Your task to perform on an android device: open app "Fetch Rewards" (install if not already installed) and enter user name: "Westwood@yahoo.com" and password: "qualifying" Image 0: 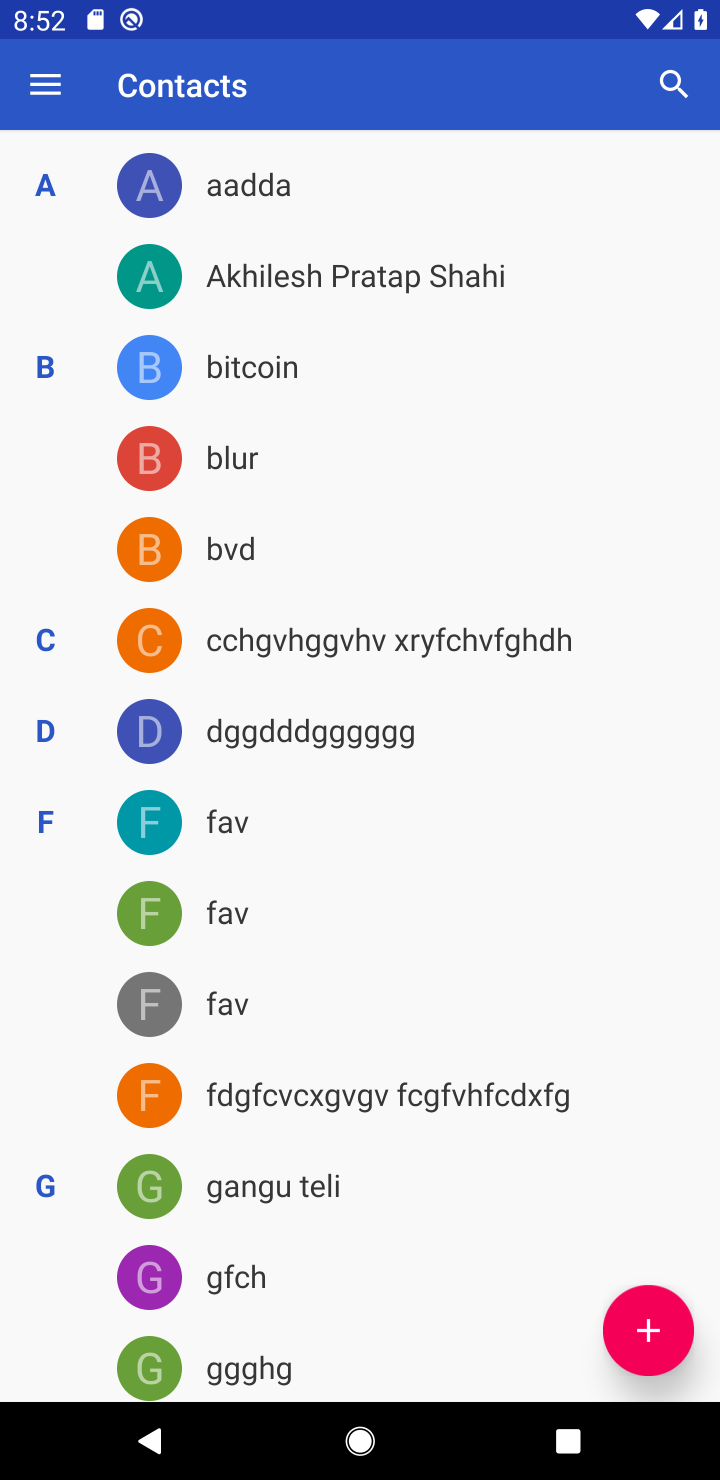
Step 0: press back button
Your task to perform on an android device: open app "Fetch Rewards" (install if not already installed) and enter user name: "Westwood@yahoo.com" and password: "qualifying" Image 1: 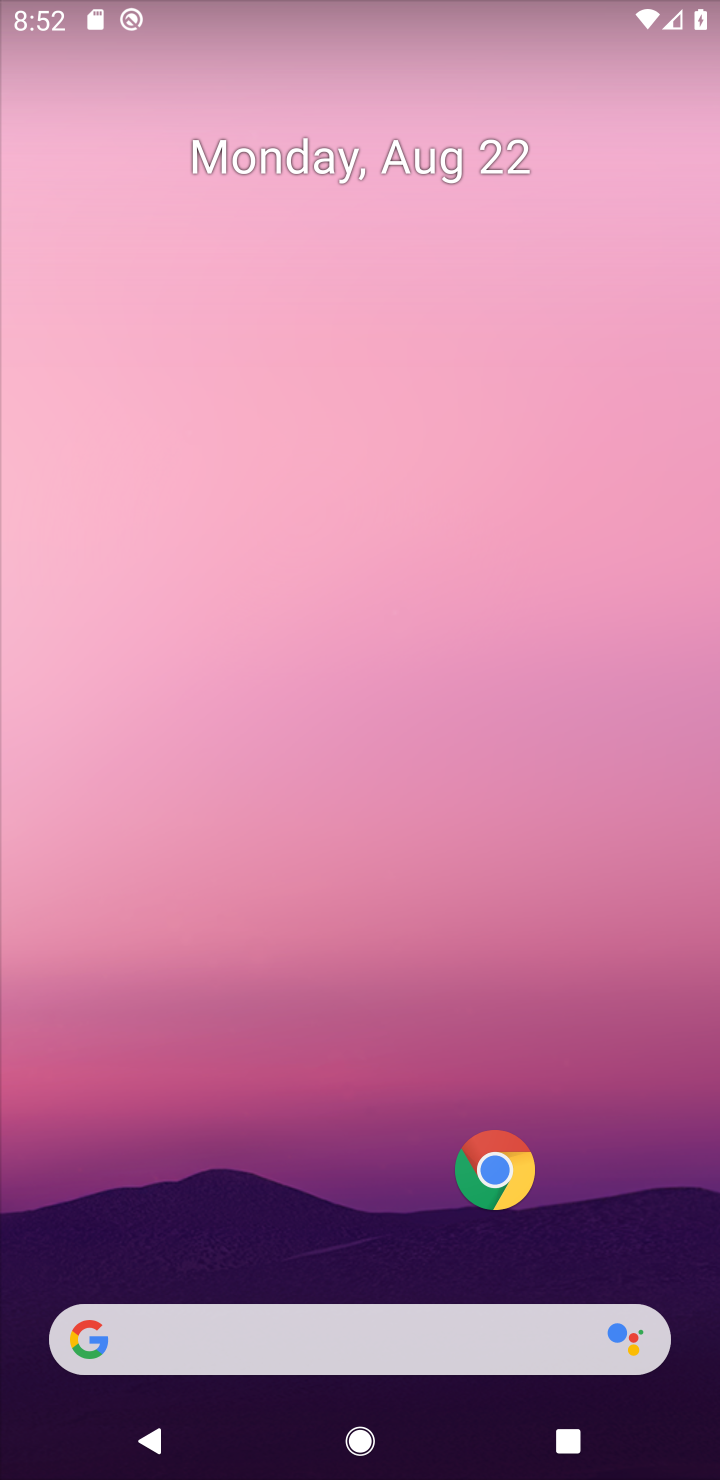
Step 1: drag from (308, 971) to (555, 45)
Your task to perform on an android device: open app "Fetch Rewards" (install if not already installed) and enter user name: "Westwood@yahoo.com" and password: "qualifying" Image 2: 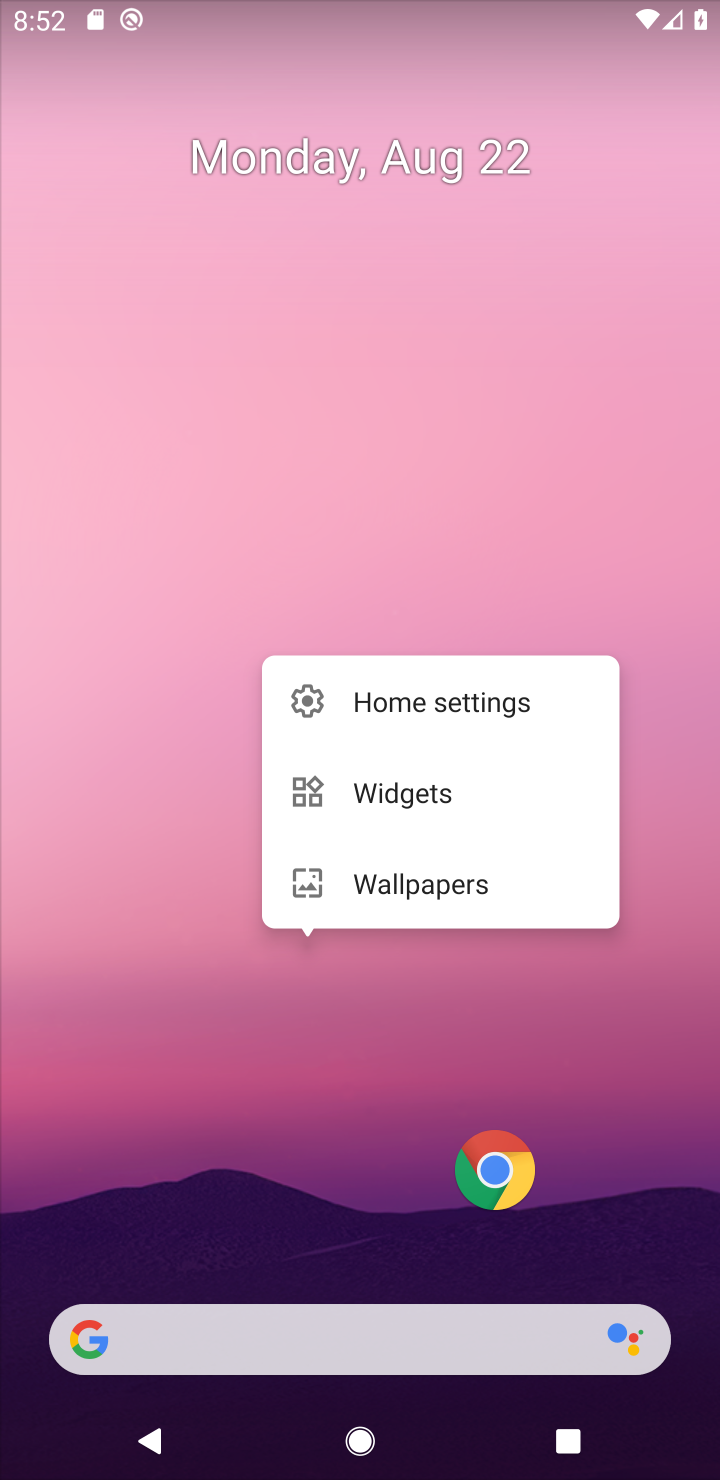
Step 2: click (165, 1170)
Your task to perform on an android device: open app "Fetch Rewards" (install if not already installed) and enter user name: "Westwood@yahoo.com" and password: "qualifying" Image 3: 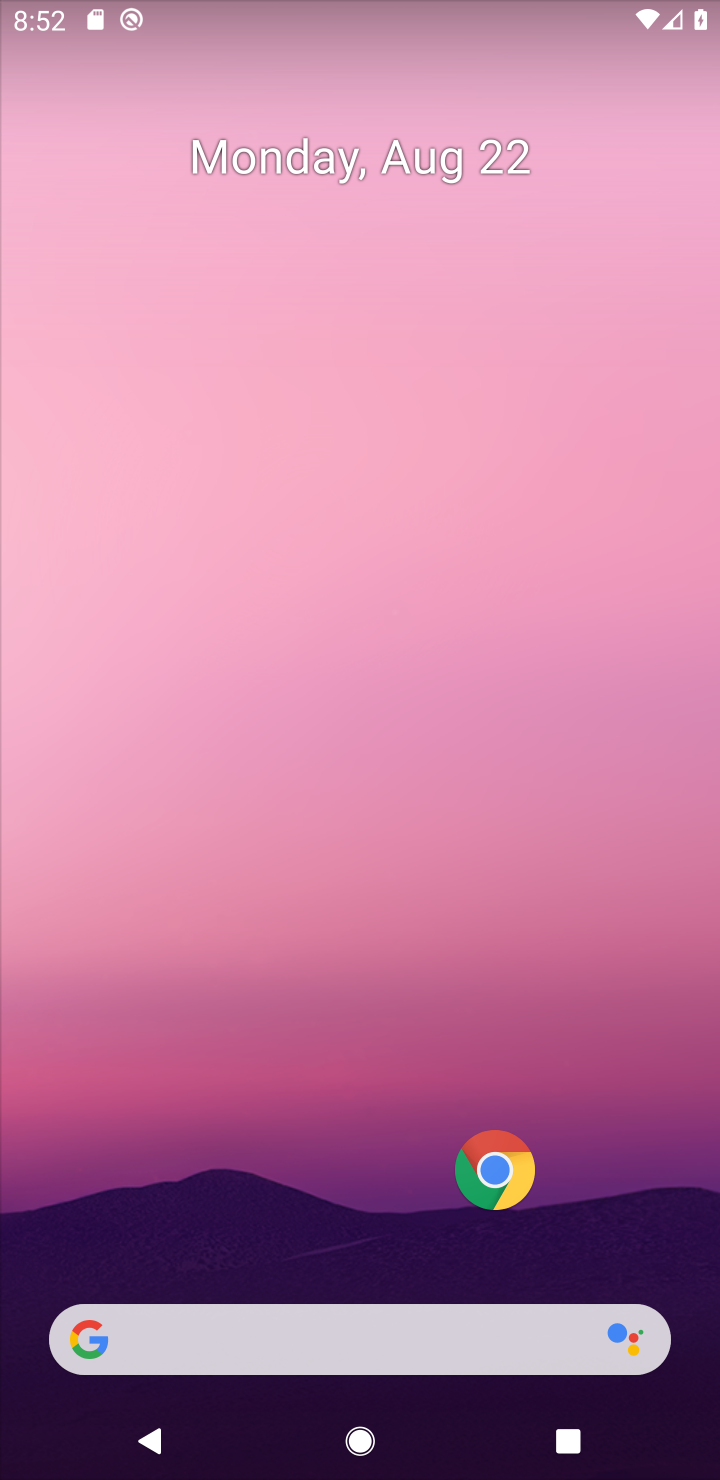
Step 3: drag from (221, 995) to (348, 177)
Your task to perform on an android device: open app "Fetch Rewards" (install if not already installed) and enter user name: "Westwood@yahoo.com" and password: "qualifying" Image 4: 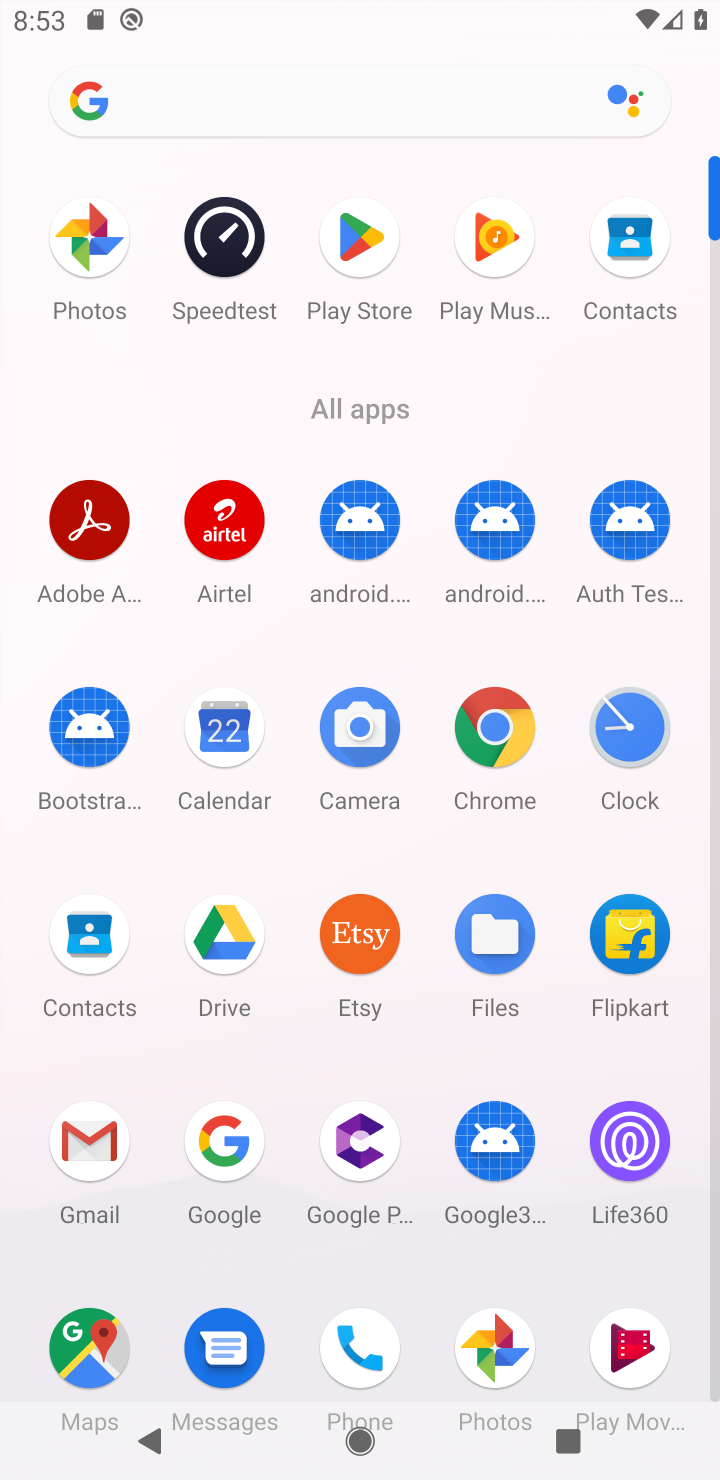
Step 4: click (359, 228)
Your task to perform on an android device: open app "Fetch Rewards" (install if not already installed) and enter user name: "Westwood@yahoo.com" and password: "qualifying" Image 5: 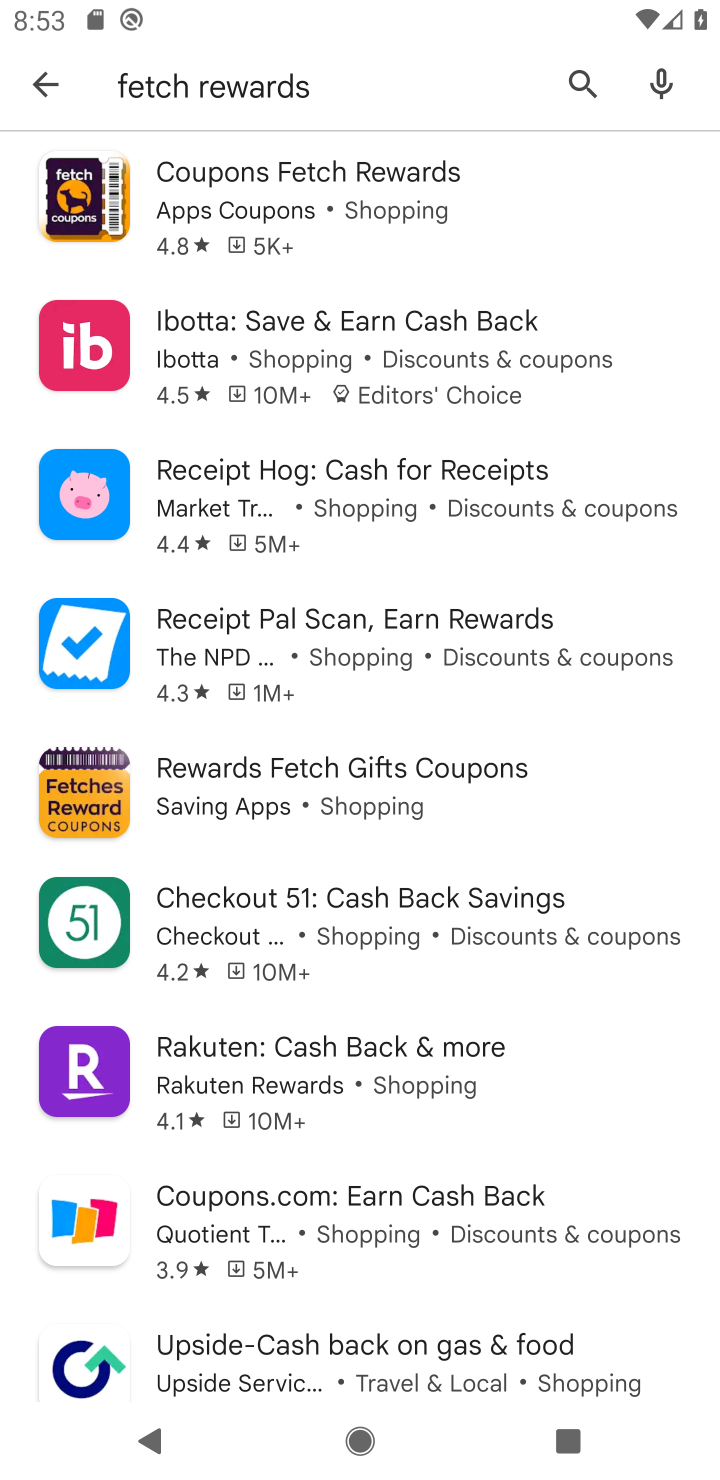
Step 5: click (561, 52)
Your task to perform on an android device: open app "Fetch Rewards" (install if not already installed) and enter user name: "Westwood@yahoo.com" and password: "qualifying" Image 6: 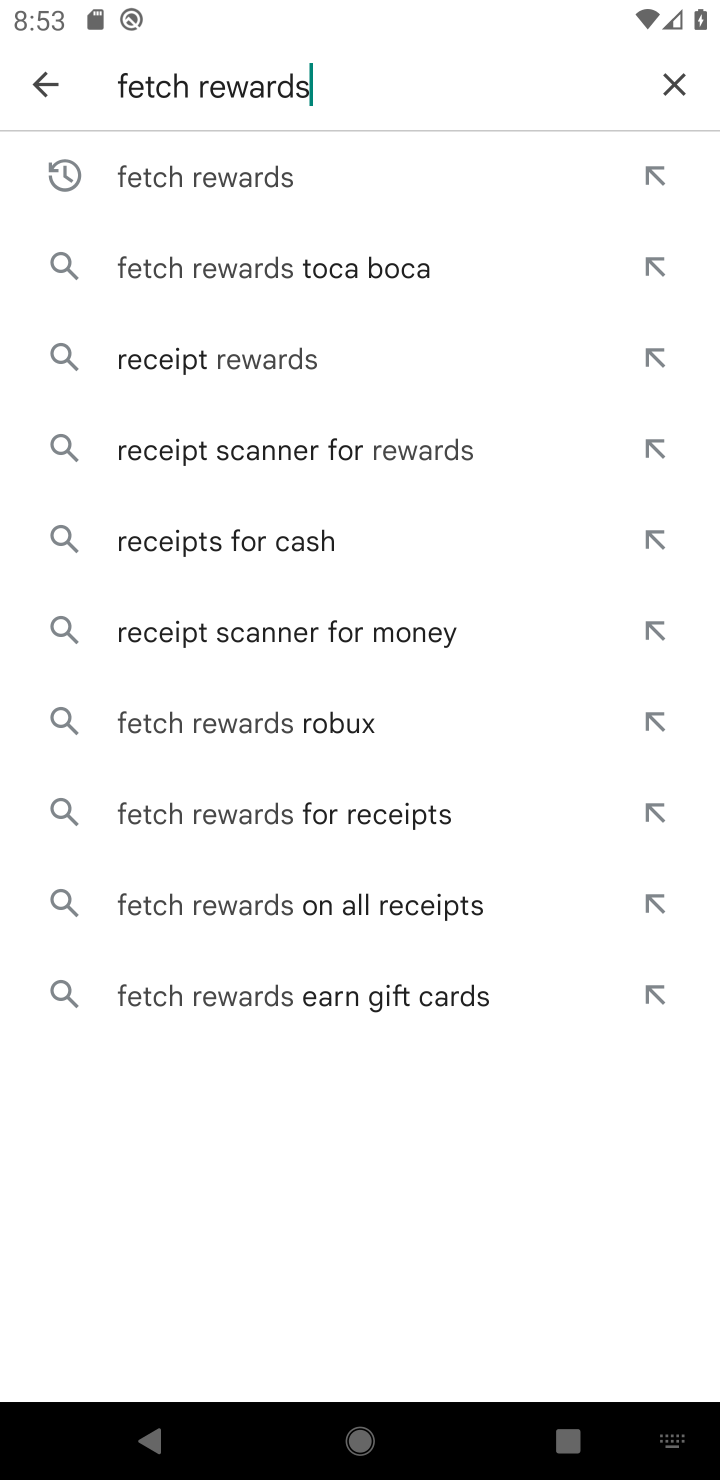
Step 6: click (267, 180)
Your task to perform on an android device: open app "Fetch Rewards" (install if not already installed) and enter user name: "Westwood@yahoo.com" and password: "qualifying" Image 7: 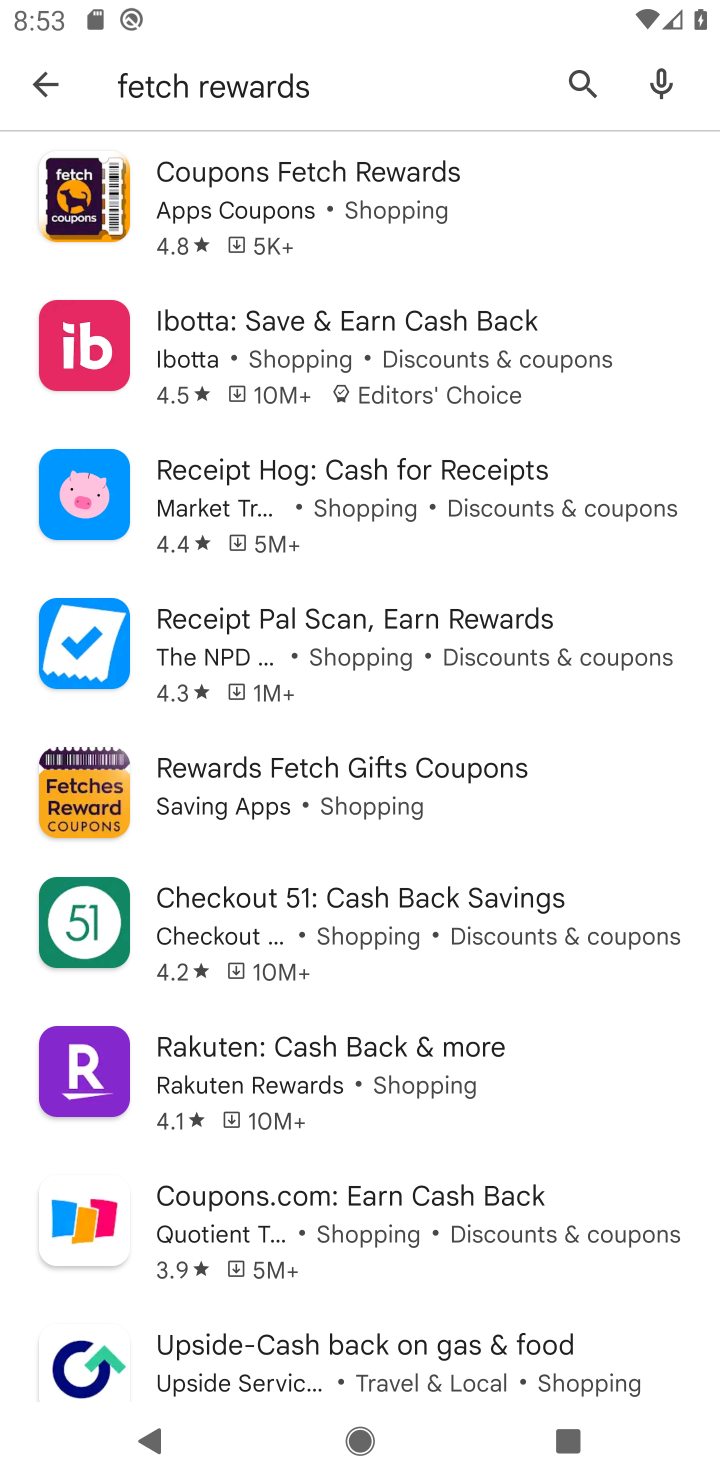
Step 7: task complete